Your task to perform on an android device: Go to location settings Image 0: 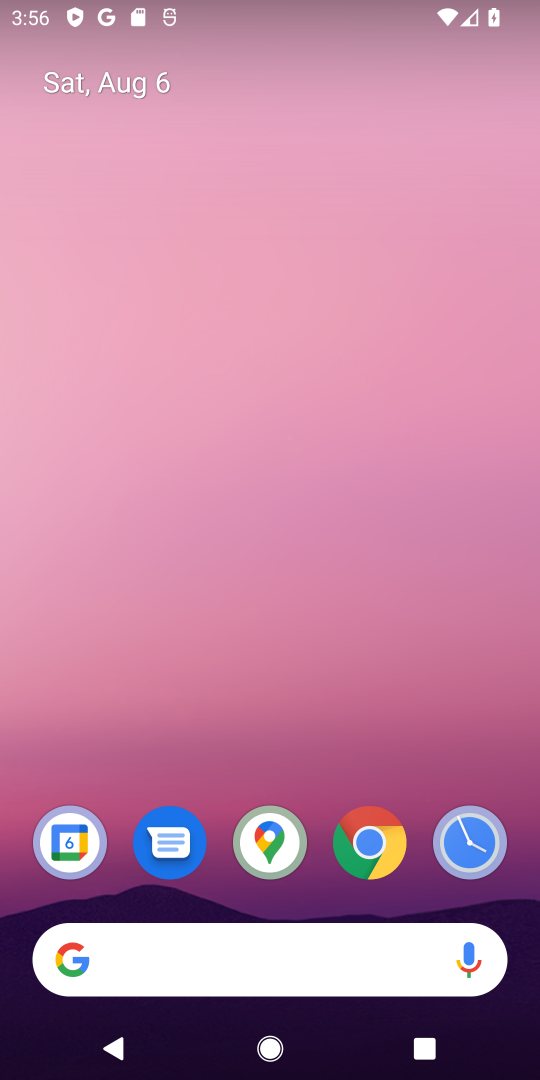
Step 0: drag from (513, 1042) to (420, 184)
Your task to perform on an android device: Go to location settings Image 1: 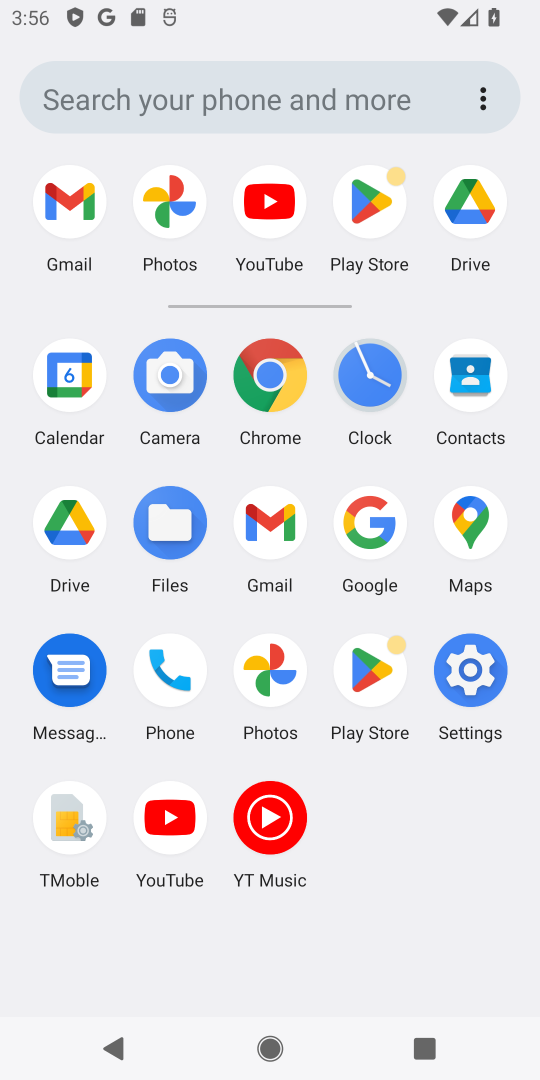
Step 1: click (489, 684)
Your task to perform on an android device: Go to location settings Image 2: 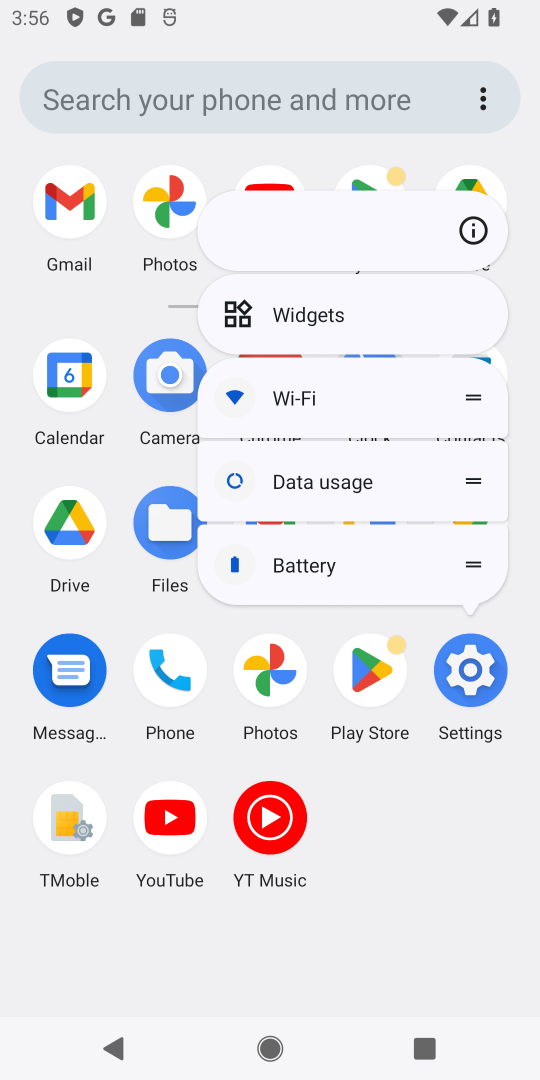
Step 2: click (473, 668)
Your task to perform on an android device: Go to location settings Image 3: 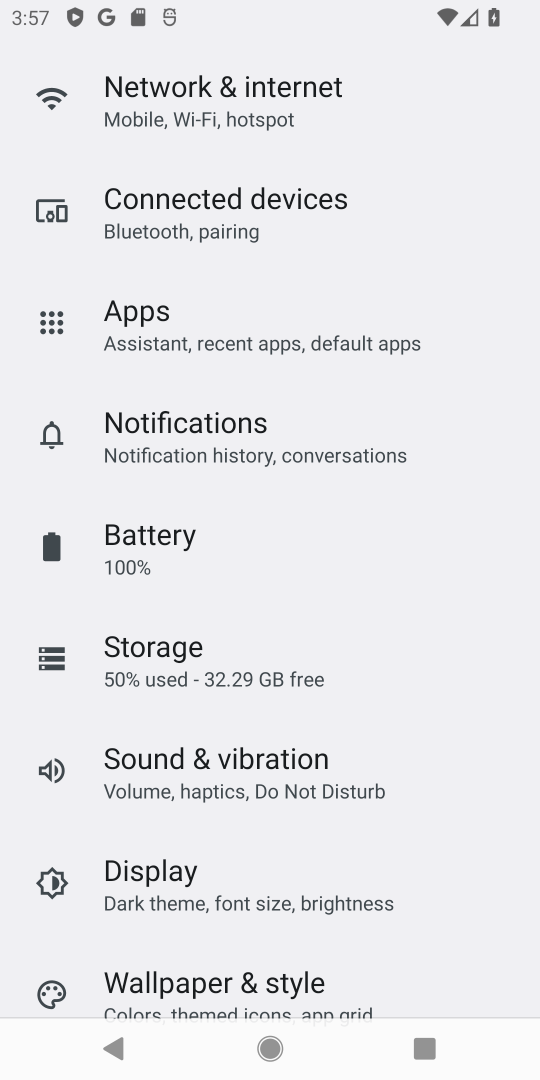
Step 3: drag from (167, 884) to (177, 401)
Your task to perform on an android device: Go to location settings Image 4: 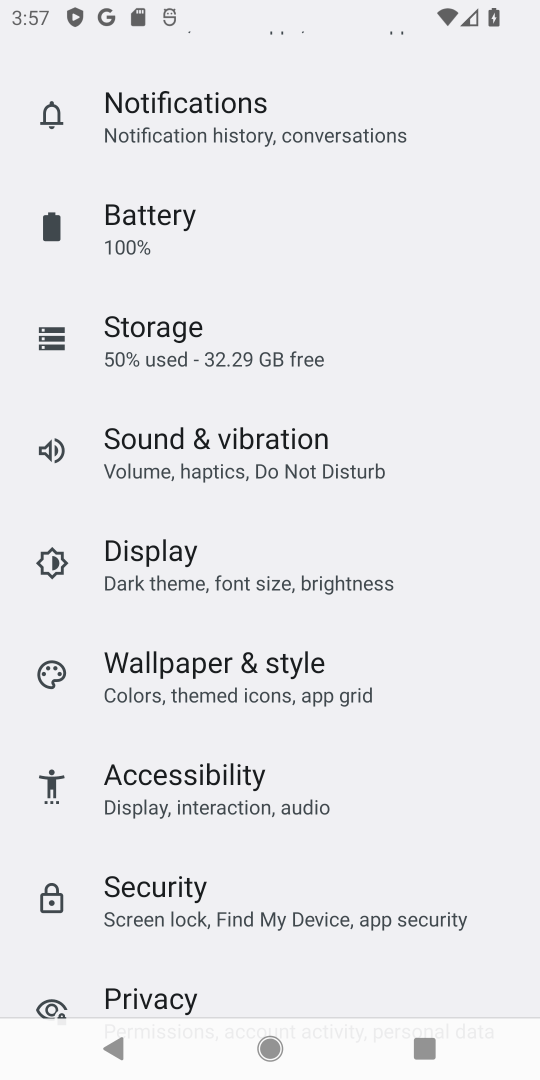
Step 4: drag from (161, 880) to (161, 391)
Your task to perform on an android device: Go to location settings Image 5: 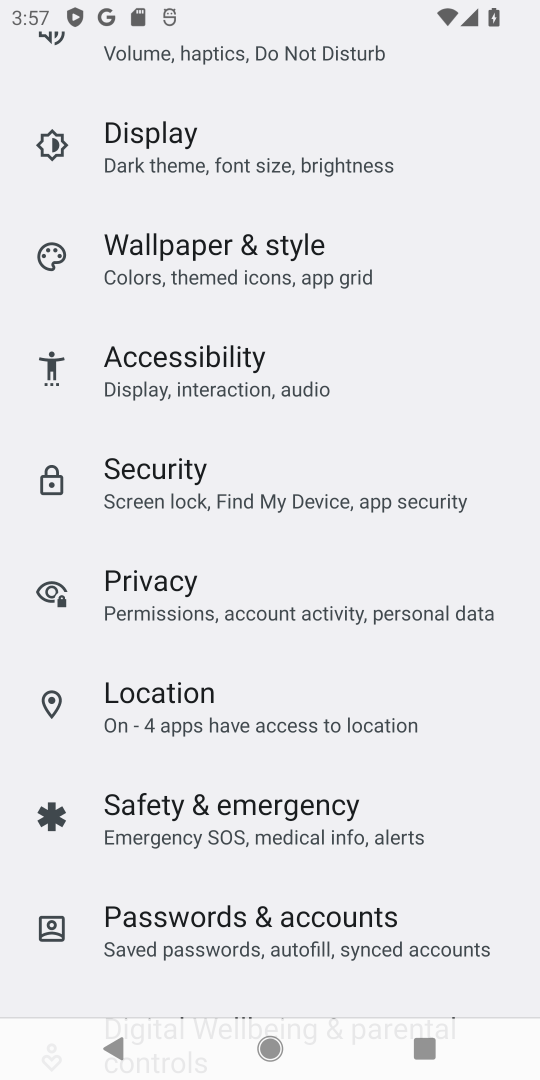
Step 5: click (159, 703)
Your task to perform on an android device: Go to location settings Image 6: 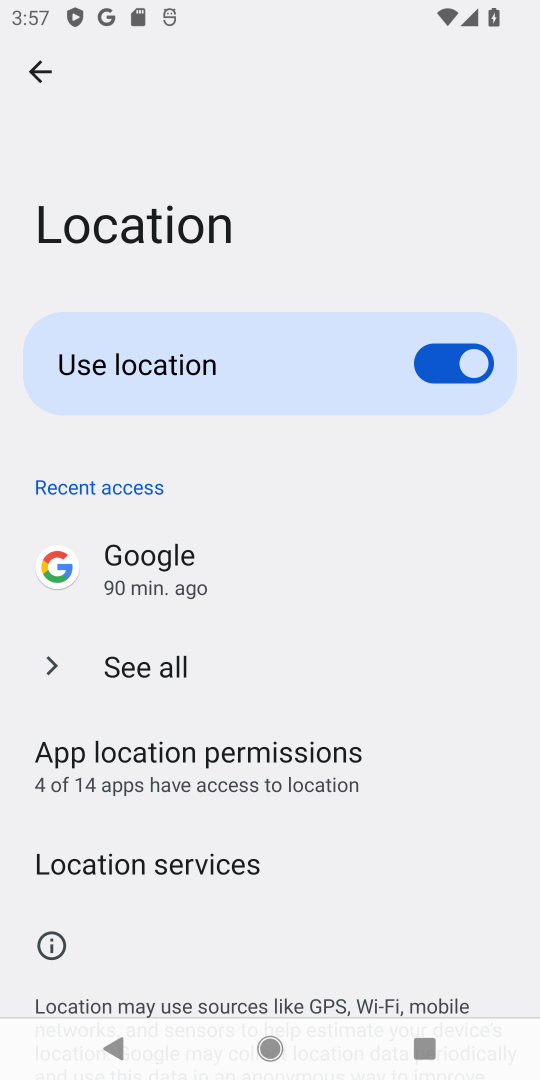
Step 6: task complete